Your task to perform on an android device: Open internet settings Image 0: 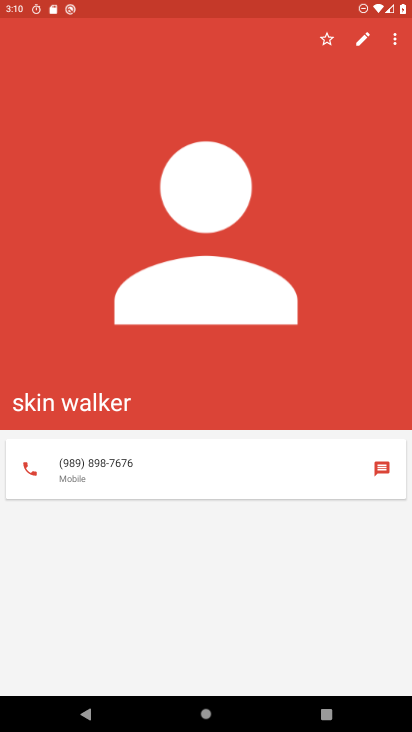
Step 0: press home button
Your task to perform on an android device: Open internet settings Image 1: 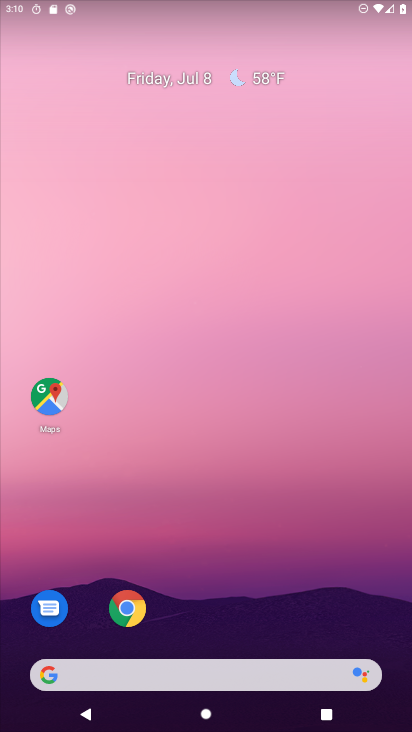
Step 1: drag from (246, 711) to (240, 109)
Your task to perform on an android device: Open internet settings Image 2: 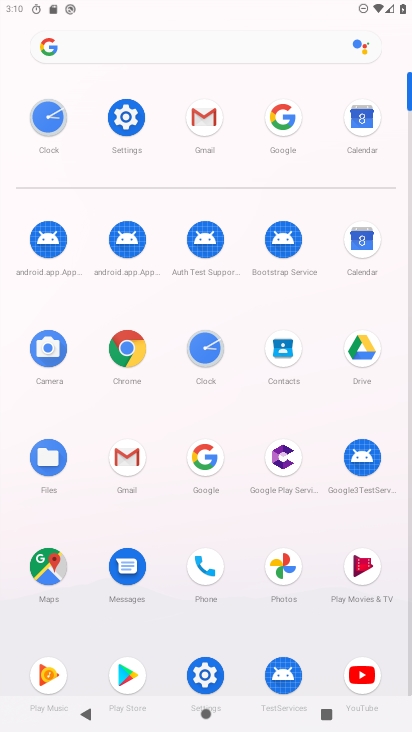
Step 2: click (129, 116)
Your task to perform on an android device: Open internet settings Image 3: 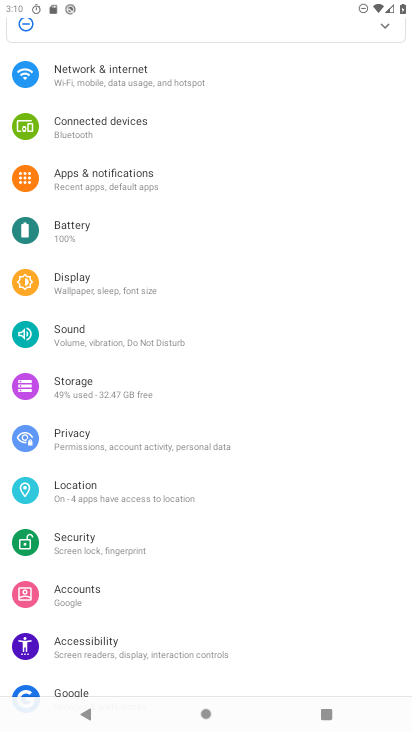
Step 3: click (117, 72)
Your task to perform on an android device: Open internet settings Image 4: 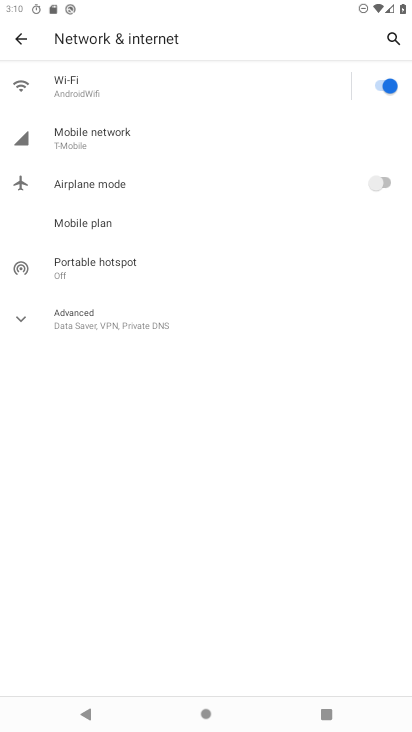
Step 4: task complete